Your task to perform on an android device: Open internet settings Image 0: 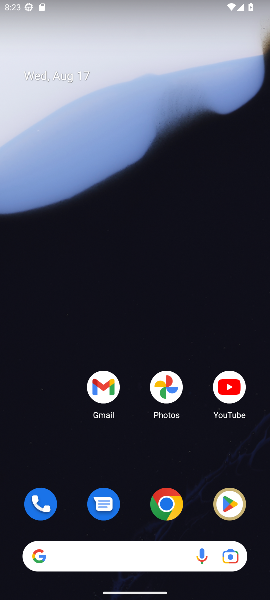
Step 0: drag from (26, 466) to (199, 75)
Your task to perform on an android device: Open internet settings Image 1: 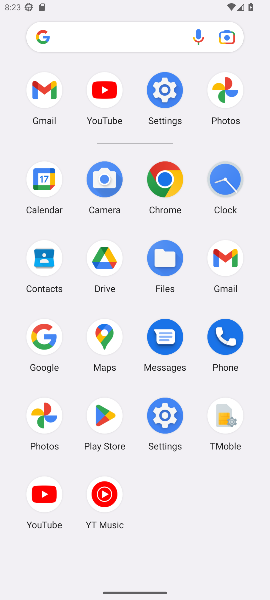
Step 1: click (169, 95)
Your task to perform on an android device: Open internet settings Image 2: 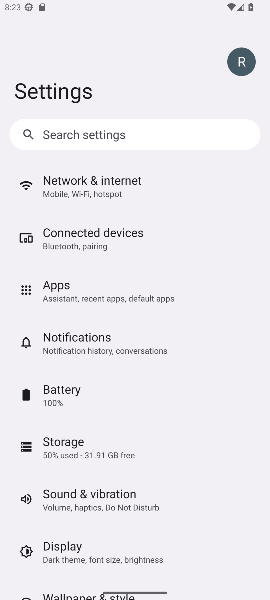
Step 2: click (95, 197)
Your task to perform on an android device: Open internet settings Image 3: 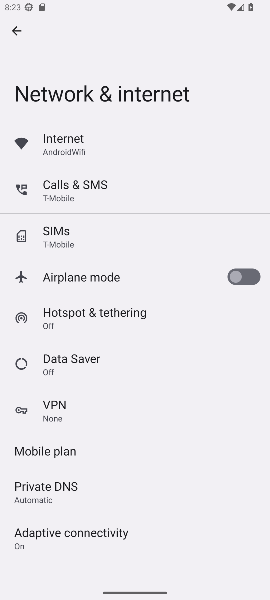
Step 3: click (107, 146)
Your task to perform on an android device: Open internet settings Image 4: 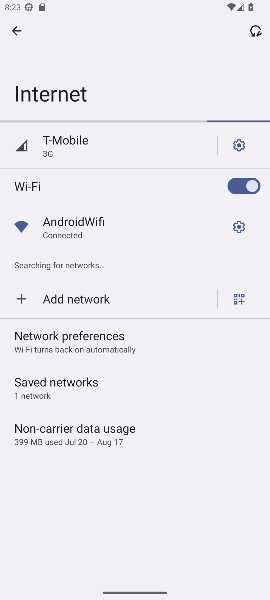
Step 4: task complete